Your task to perform on an android device: move a message to another label in the gmail app Image 0: 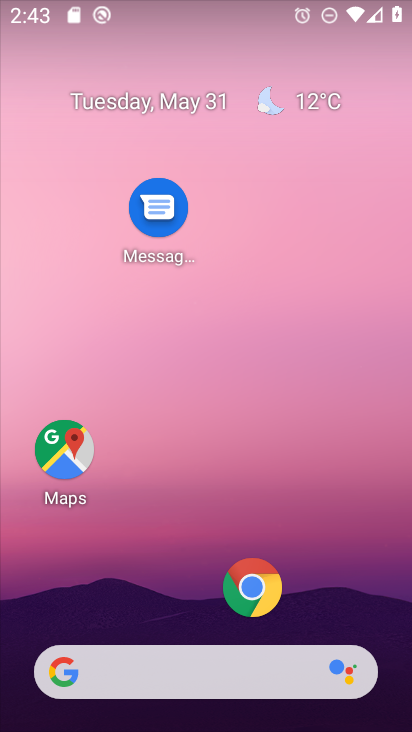
Step 0: click (277, 60)
Your task to perform on an android device: move a message to another label in the gmail app Image 1: 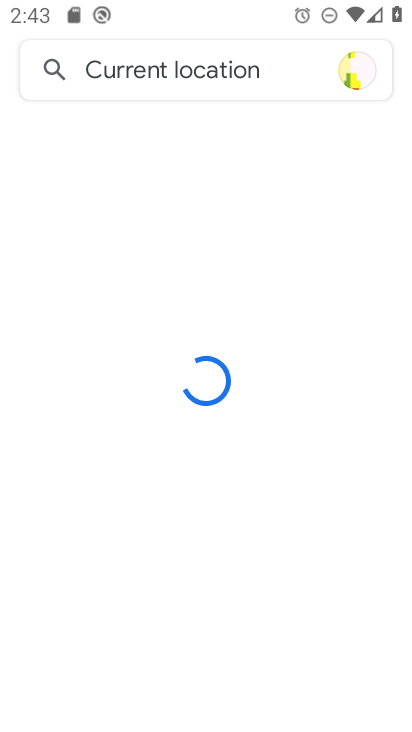
Step 1: press home button
Your task to perform on an android device: move a message to another label in the gmail app Image 2: 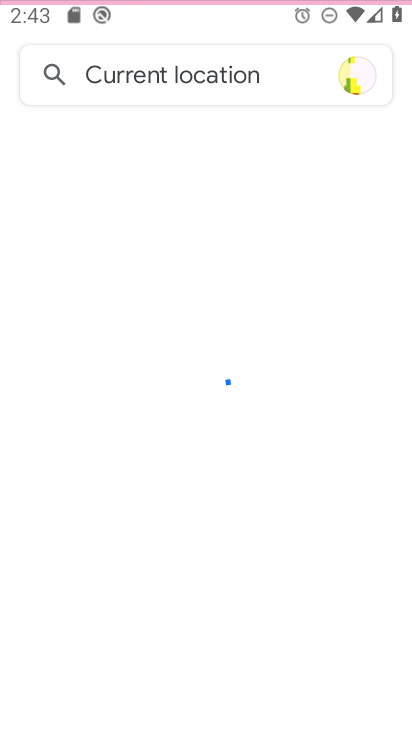
Step 2: press home button
Your task to perform on an android device: move a message to another label in the gmail app Image 3: 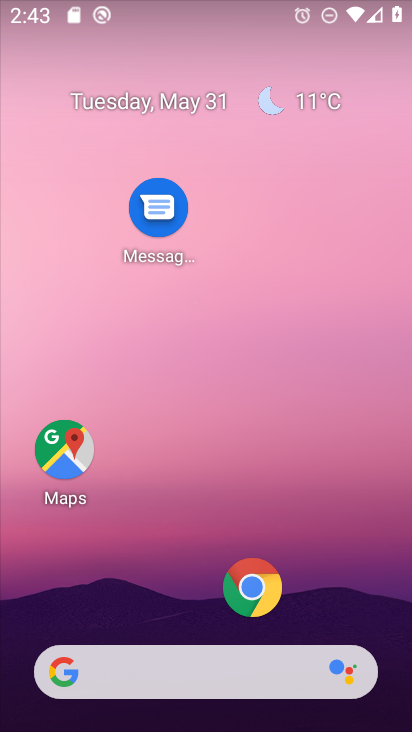
Step 3: drag from (198, 580) to (276, 48)
Your task to perform on an android device: move a message to another label in the gmail app Image 4: 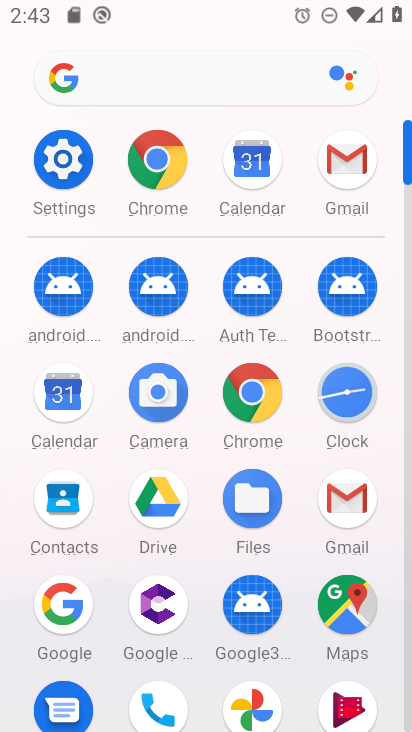
Step 4: click (334, 487)
Your task to perform on an android device: move a message to another label in the gmail app Image 5: 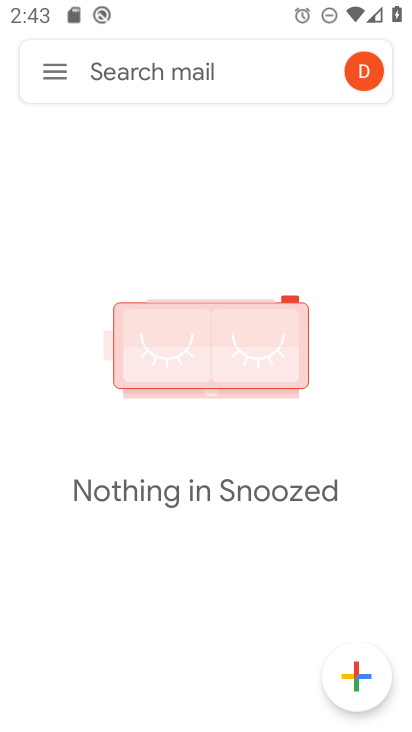
Step 5: task complete